Your task to perform on an android device: open chrome and create a bookmark for the current page Image 0: 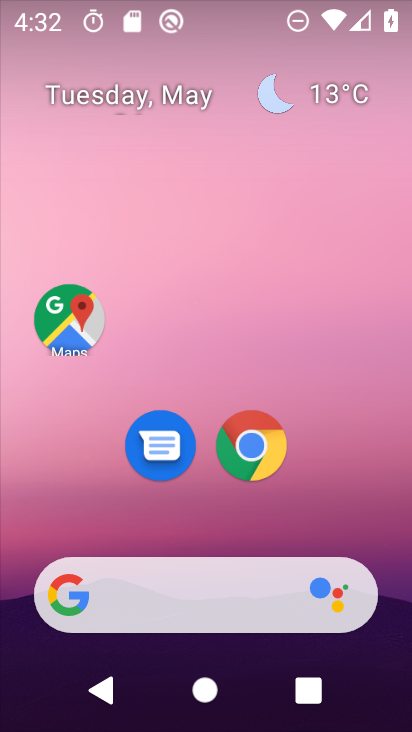
Step 0: click (245, 436)
Your task to perform on an android device: open chrome and create a bookmark for the current page Image 1: 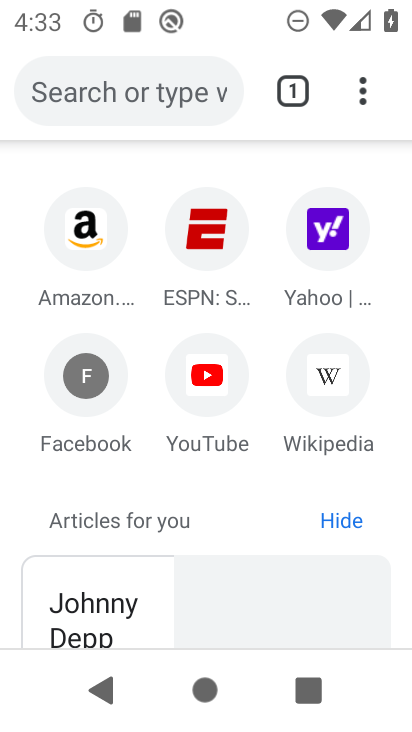
Step 1: click (362, 89)
Your task to perform on an android device: open chrome and create a bookmark for the current page Image 2: 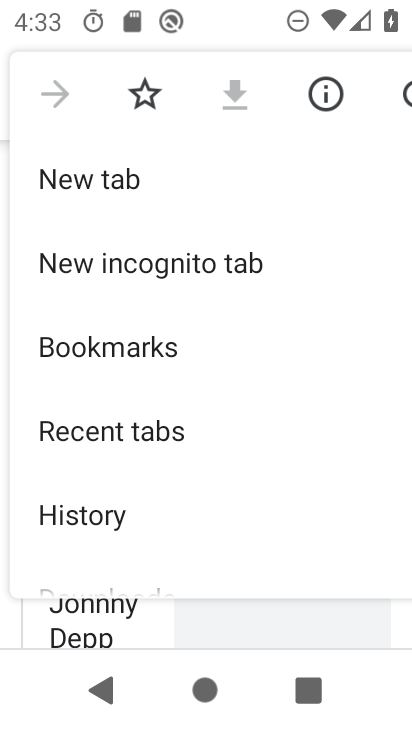
Step 2: click (150, 98)
Your task to perform on an android device: open chrome and create a bookmark for the current page Image 3: 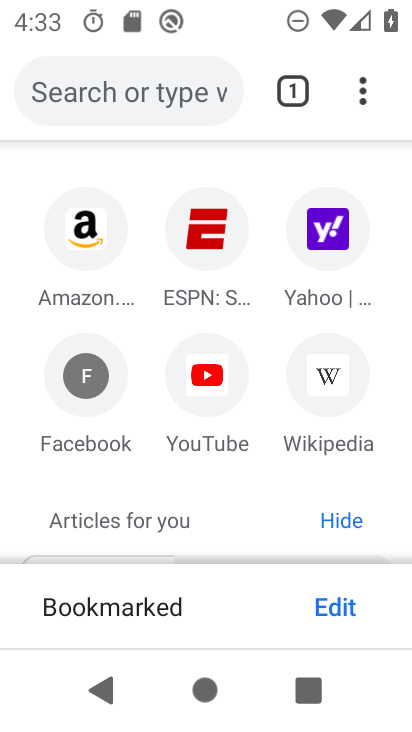
Step 3: task complete